Your task to perform on an android device: allow cookies in the chrome app Image 0: 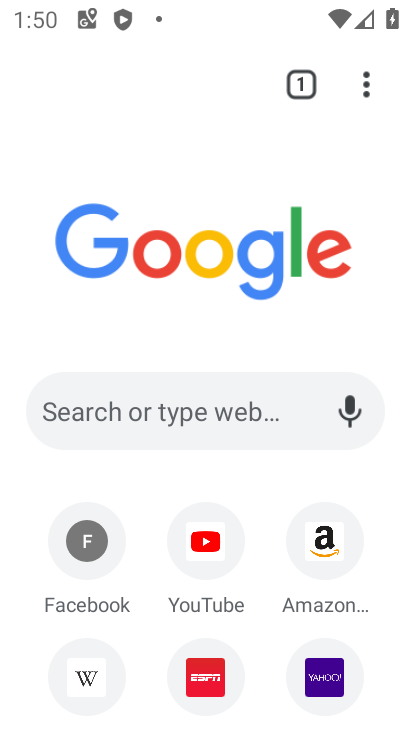
Step 0: click (369, 60)
Your task to perform on an android device: allow cookies in the chrome app Image 1: 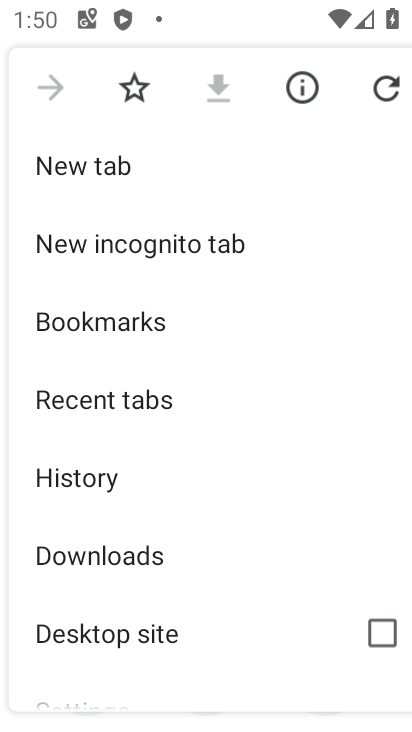
Step 1: drag from (196, 622) to (170, 127)
Your task to perform on an android device: allow cookies in the chrome app Image 2: 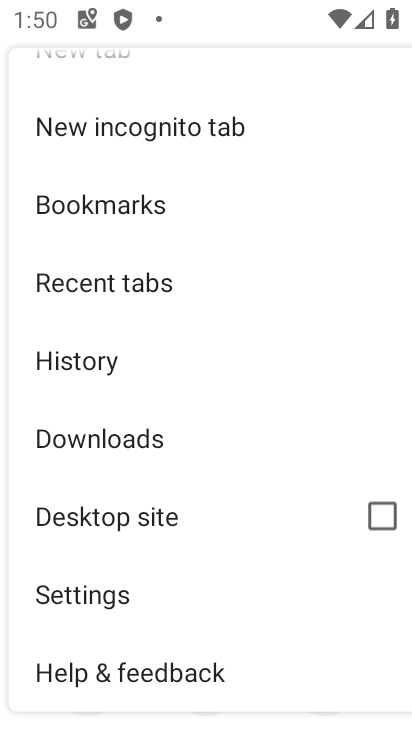
Step 2: click (133, 580)
Your task to perform on an android device: allow cookies in the chrome app Image 3: 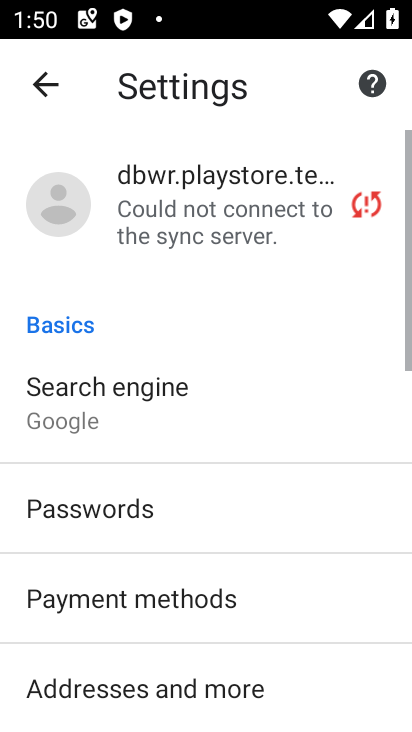
Step 3: drag from (246, 569) to (271, 66)
Your task to perform on an android device: allow cookies in the chrome app Image 4: 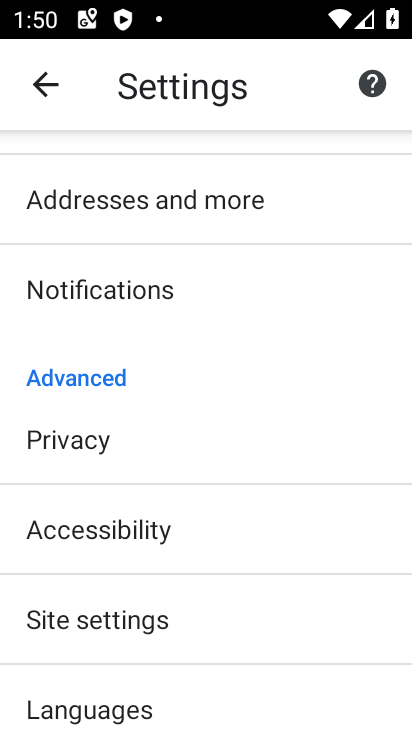
Step 4: click (167, 643)
Your task to perform on an android device: allow cookies in the chrome app Image 5: 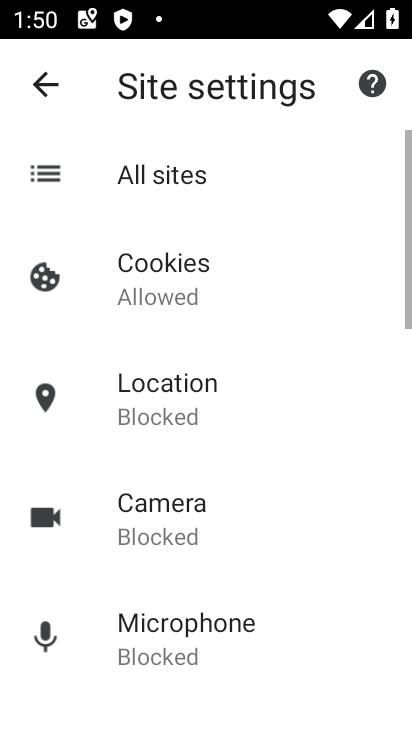
Step 5: click (161, 275)
Your task to perform on an android device: allow cookies in the chrome app Image 6: 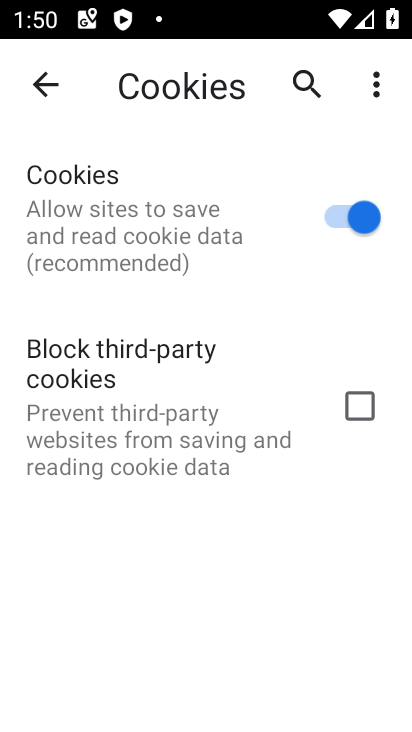
Step 6: task complete